Your task to perform on an android device: Clear the cart on walmart.com. Image 0: 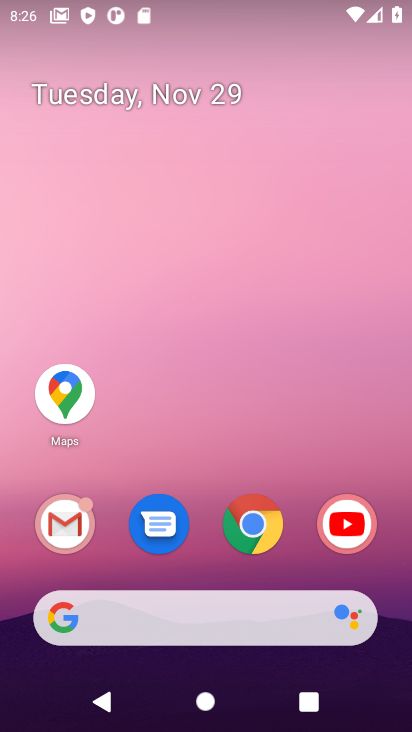
Step 0: click (262, 515)
Your task to perform on an android device: Clear the cart on walmart.com. Image 1: 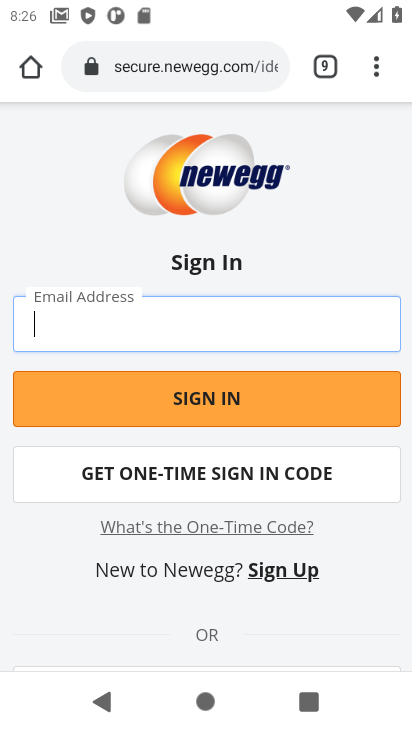
Step 1: click (191, 67)
Your task to perform on an android device: Clear the cart on walmart.com. Image 2: 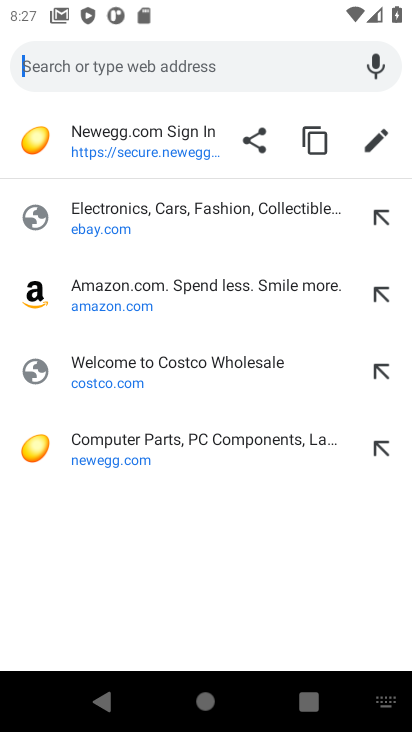
Step 2: type "walmart.com"
Your task to perform on an android device: Clear the cart on walmart.com. Image 3: 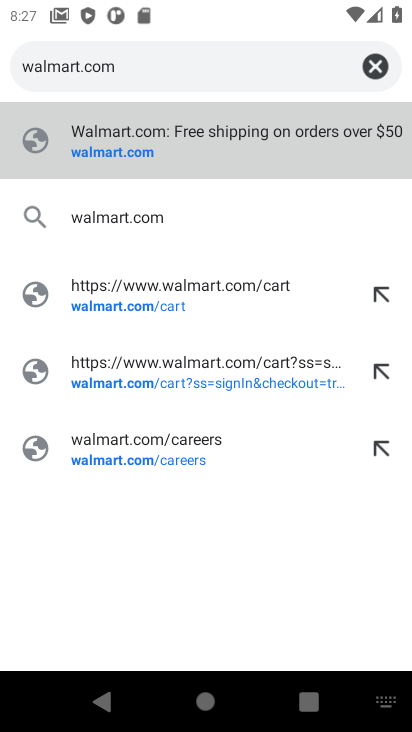
Step 3: click (81, 154)
Your task to perform on an android device: Clear the cart on walmart.com. Image 4: 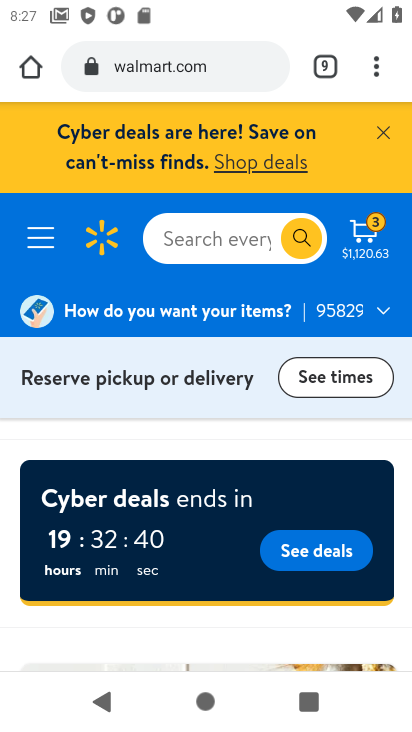
Step 4: click (371, 232)
Your task to perform on an android device: Clear the cart on walmart.com. Image 5: 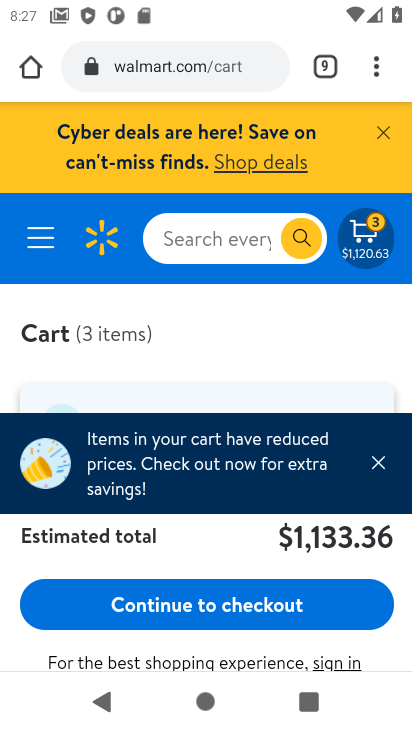
Step 5: drag from (268, 351) to (284, 136)
Your task to perform on an android device: Clear the cart on walmart.com. Image 6: 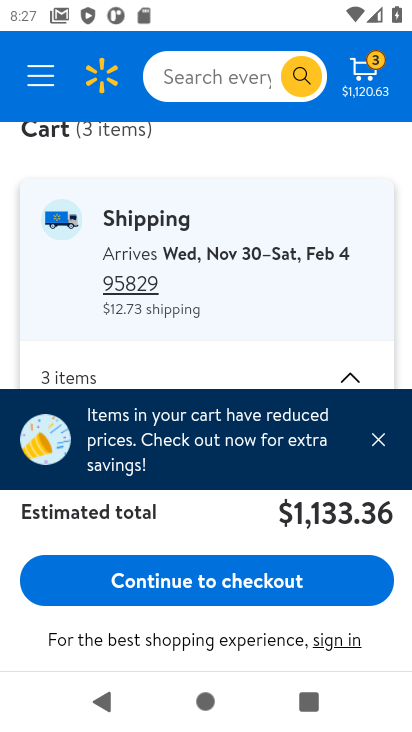
Step 6: drag from (263, 276) to (275, 155)
Your task to perform on an android device: Clear the cart on walmart.com. Image 7: 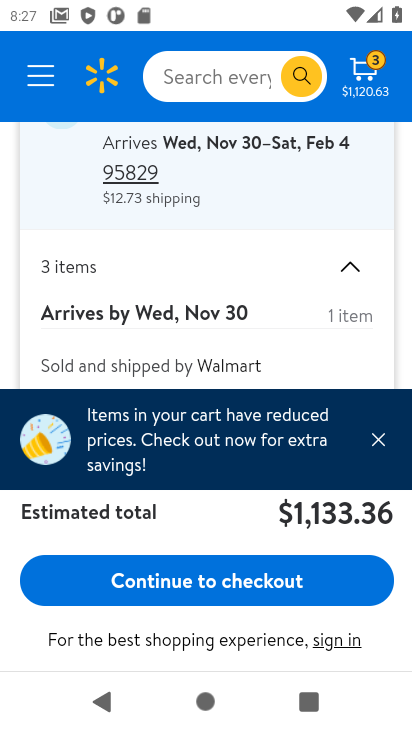
Step 7: click (382, 444)
Your task to perform on an android device: Clear the cart on walmart.com. Image 8: 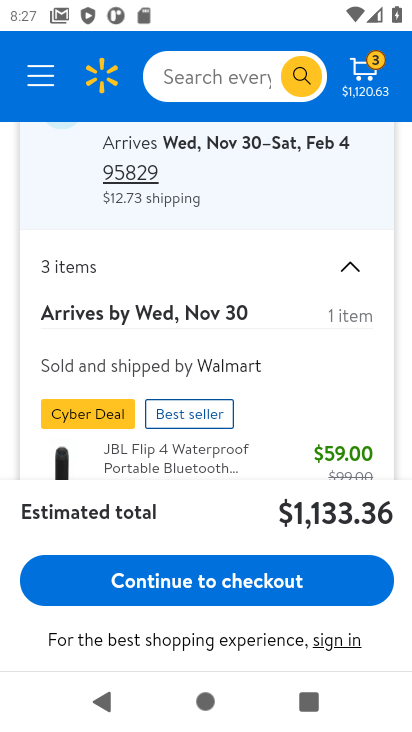
Step 8: drag from (165, 420) to (156, 245)
Your task to perform on an android device: Clear the cart on walmart.com. Image 9: 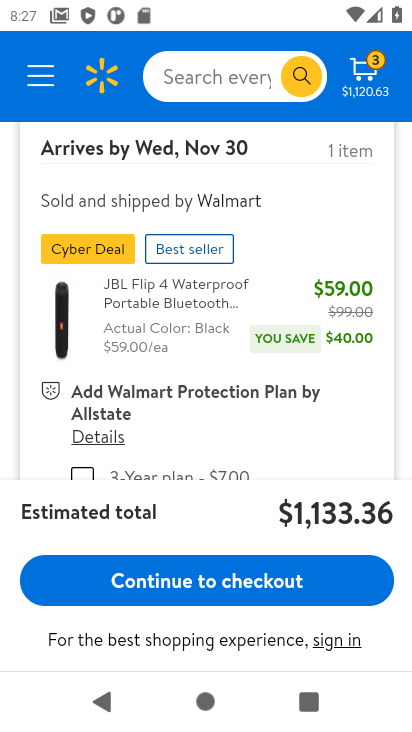
Step 9: drag from (90, 419) to (97, 243)
Your task to perform on an android device: Clear the cart on walmart.com. Image 10: 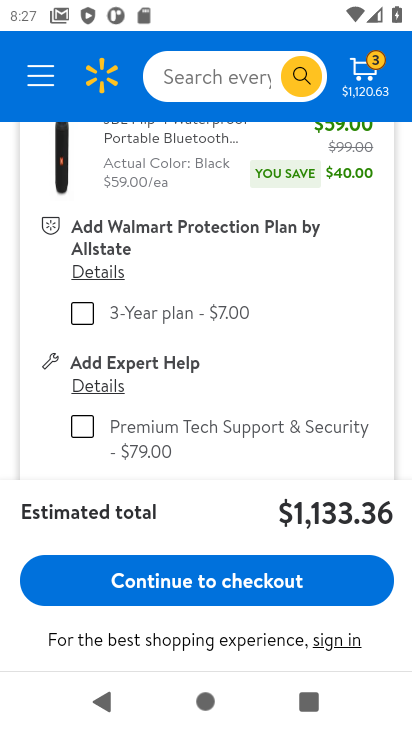
Step 10: drag from (95, 439) to (119, 189)
Your task to perform on an android device: Clear the cart on walmart.com. Image 11: 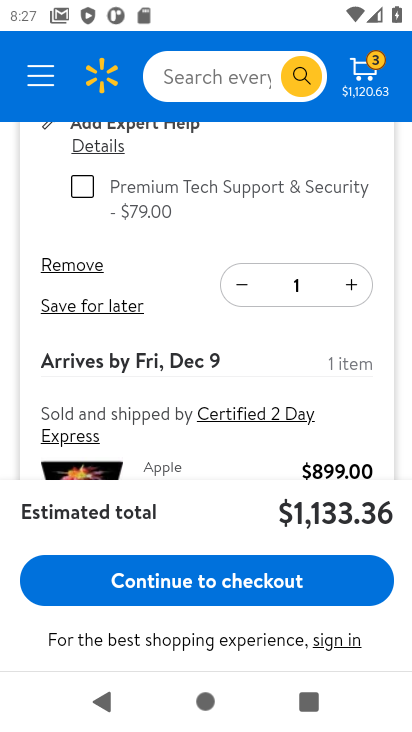
Step 11: click (73, 256)
Your task to perform on an android device: Clear the cart on walmart.com. Image 12: 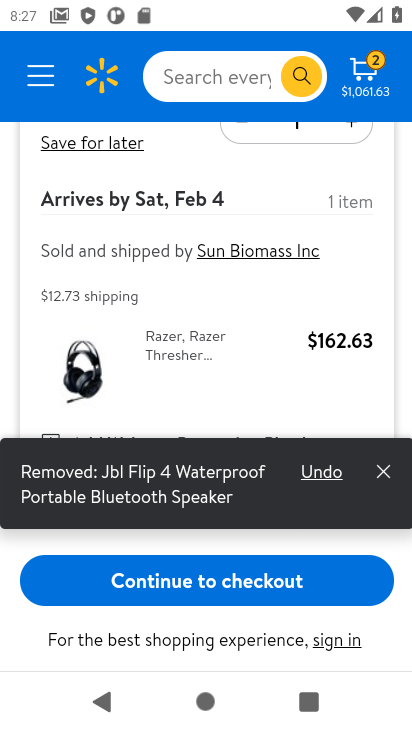
Step 12: drag from (146, 227) to (171, 324)
Your task to perform on an android device: Clear the cart on walmart.com. Image 13: 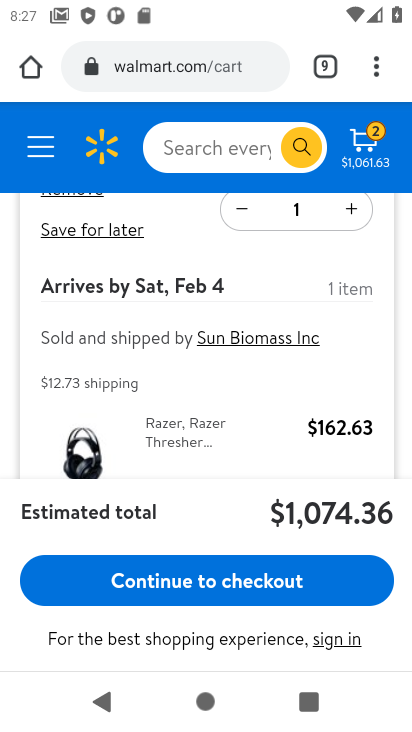
Step 13: drag from (111, 241) to (105, 352)
Your task to perform on an android device: Clear the cart on walmart.com. Image 14: 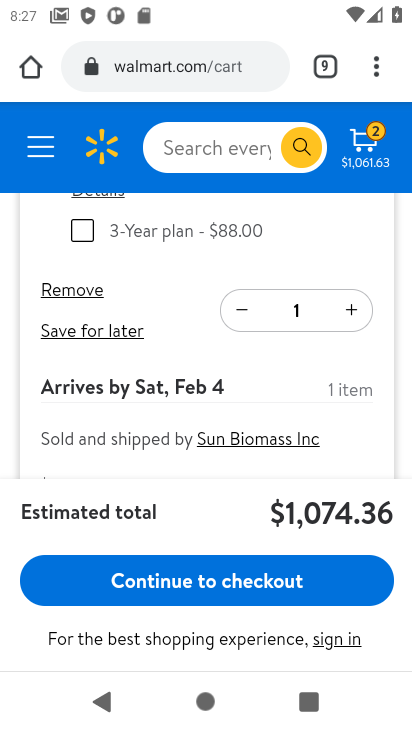
Step 14: click (83, 296)
Your task to perform on an android device: Clear the cart on walmart.com. Image 15: 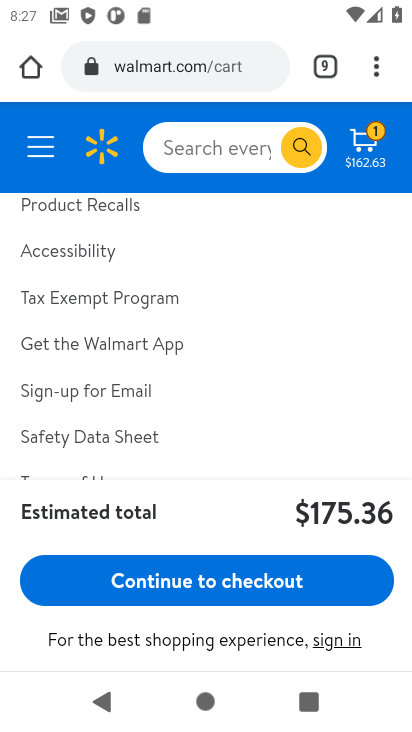
Step 15: drag from (235, 327) to (222, 236)
Your task to perform on an android device: Clear the cart on walmart.com. Image 16: 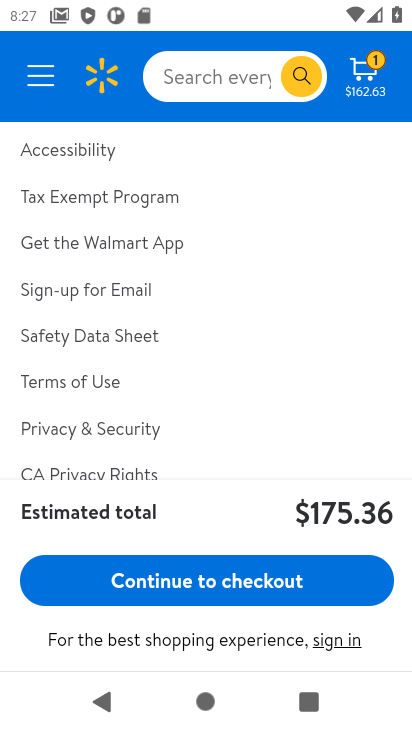
Step 16: drag from (227, 289) to (229, 512)
Your task to perform on an android device: Clear the cart on walmart.com. Image 17: 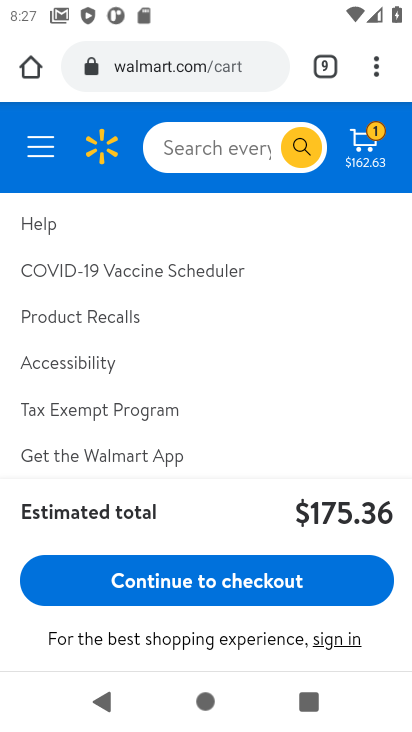
Step 17: drag from (238, 326) to (222, 517)
Your task to perform on an android device: Clear the cart on walmart.com. Image 18: 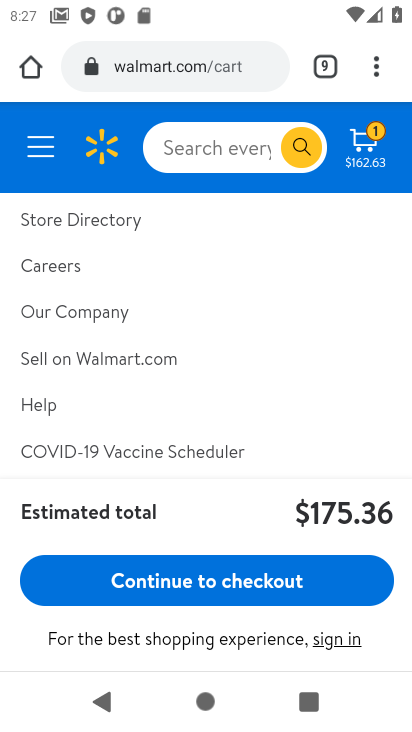
Step 18: drag from (227, 274) to (214, 468)
Your task to perform on an android device: Clear the cart on walmart.com. Image 19: 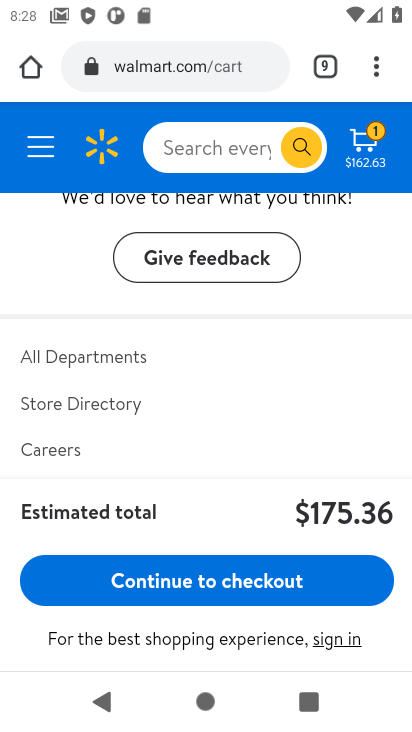
Step 19: drag from (221, 337) to (214, 448)
Your task to perform on an android device: Clear the cart on walmart.com. Image 20: 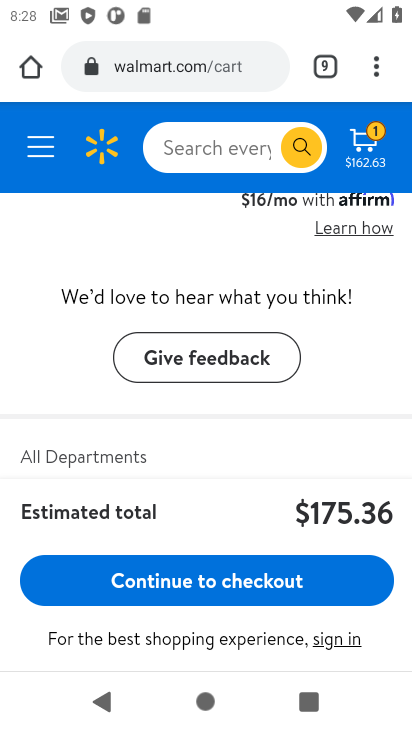
Step 20: drag from (212, 235) to (199, 478)
Your task to perform on an android device: Clear the cart on walmart.com. Image 21: 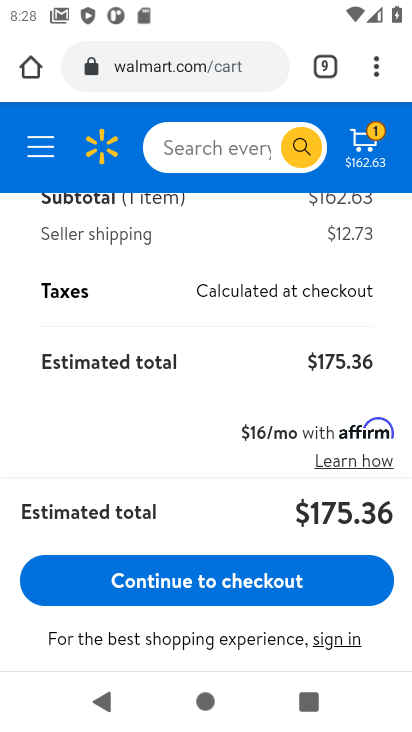
Step 21: drag from (156, 279) to (165, 423)
Your task to perform on an android device: Clear the cart on walmart.com. Image 22: 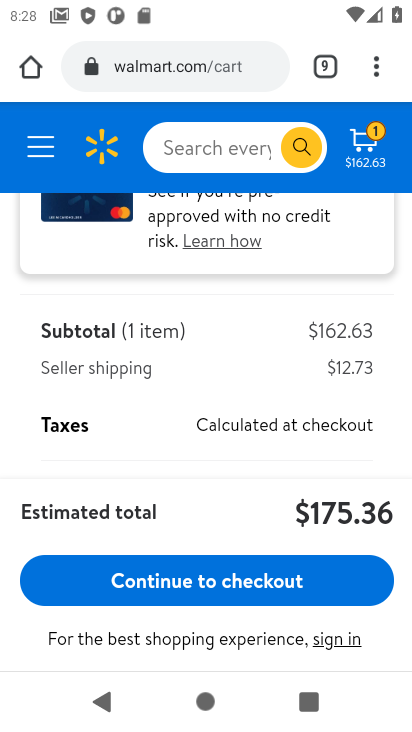
Step 22: drag from (168, 293) to (165, 467)
Your task to perform on an android device: Clear the cart on walmart.com. Image 23: 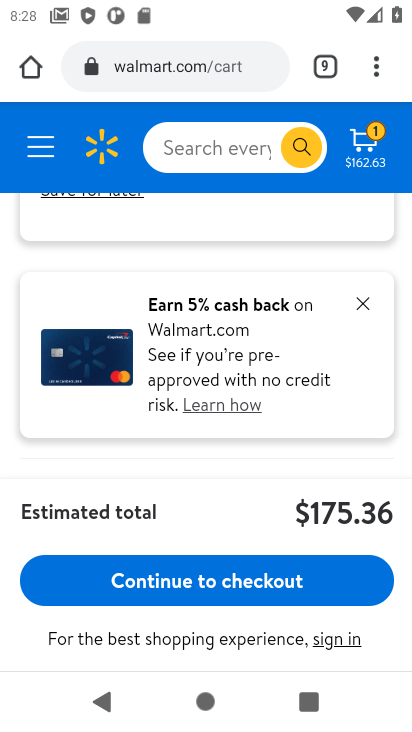
Step 23: drag from (182, 287) to (188, 448)
Your task to perform on an android device: Clear the cart on walmart.com. Image 24: 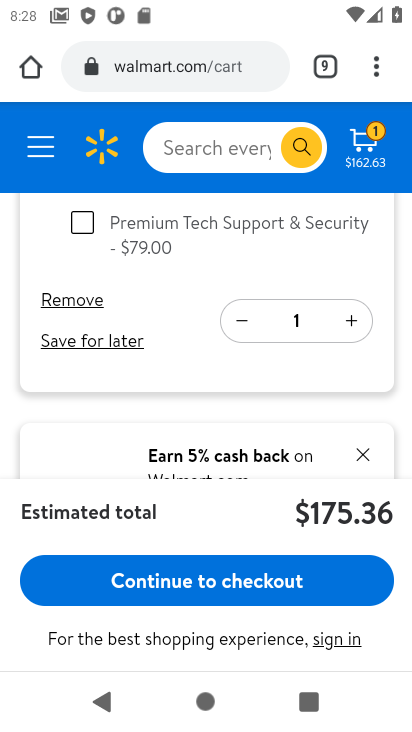
Step 24: click (72, 302)
Your task to perform on an android device: Clear the cart on walmart.com. Image 25: 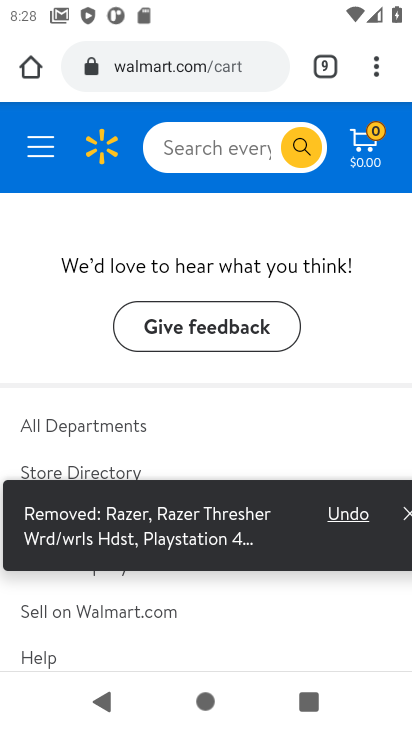
Step 25: task complete